Your task to perform on an android device: set an alarm Image 0: 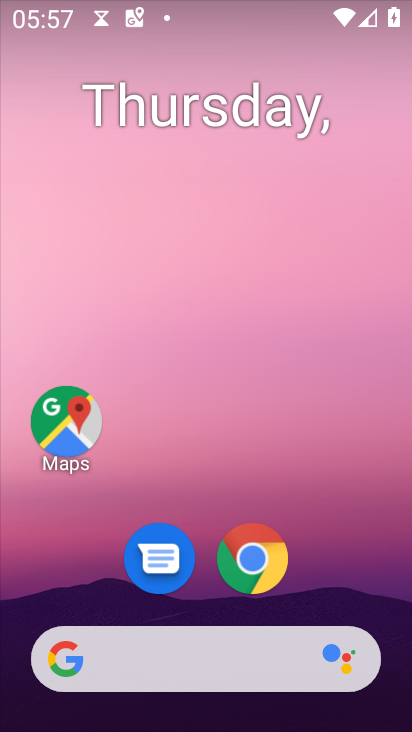
Step 0: drag from (314, 587) to (324, 162)
Your task to perform on an android device: set an alarm Image 1: 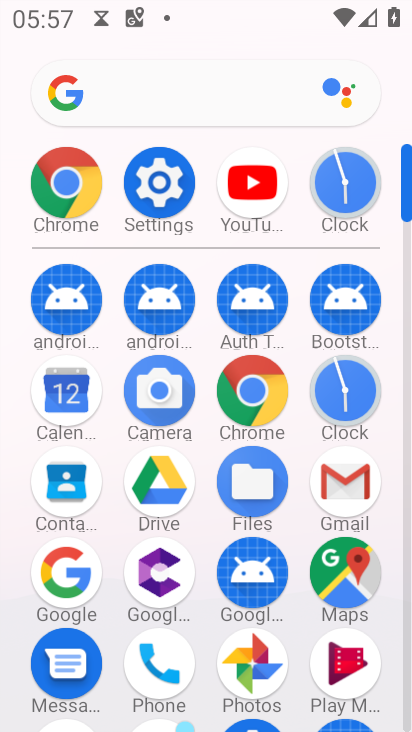
Step 1: click (344, 420)
Your task to perform on an android device: set an alarm Image 2: 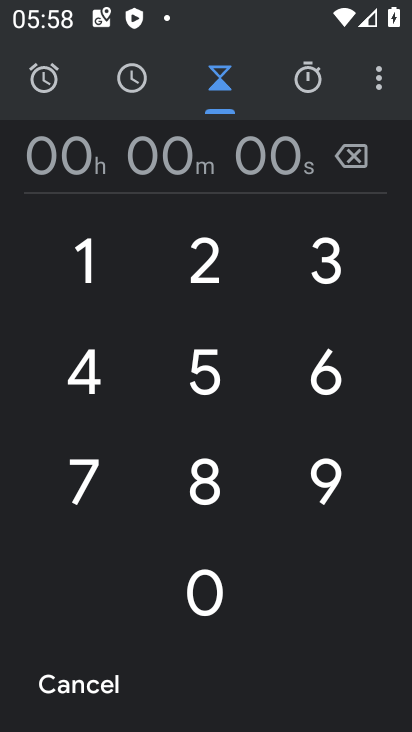
Step 2: click (49, 96)
Your task to perform on an android device: set an alarm Image 3: 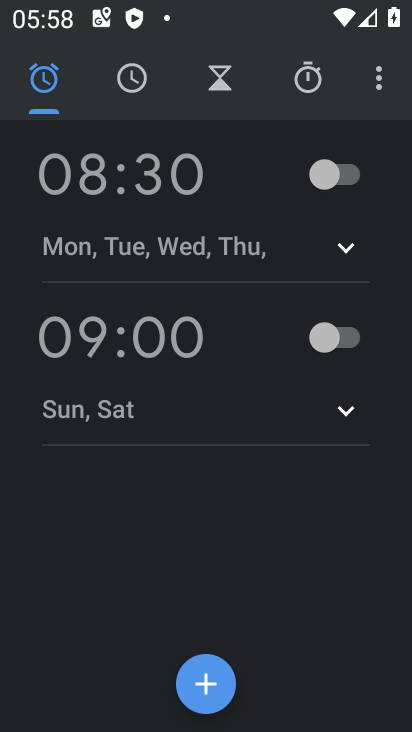
Step 3: click (156, 178)
Your task to perform on an android device: set an alarm Image 4: 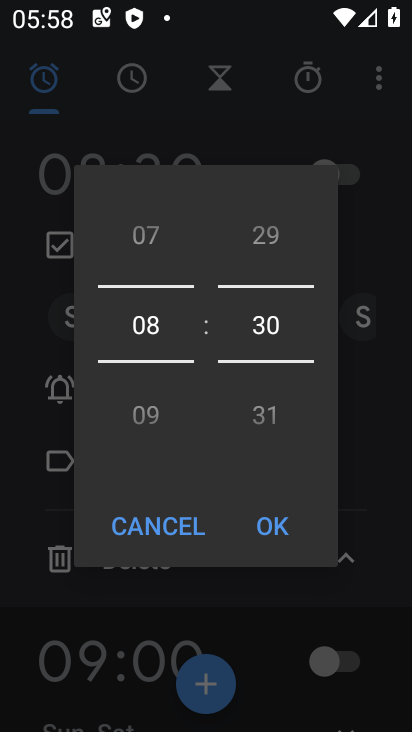
Step 4: task complete